Your task to perform on an android device: Show the shopping cart on amazon.com. Search for "razer nari" on amazon.com, select the first entry, add it to the cart, then select checkout. Image 0: 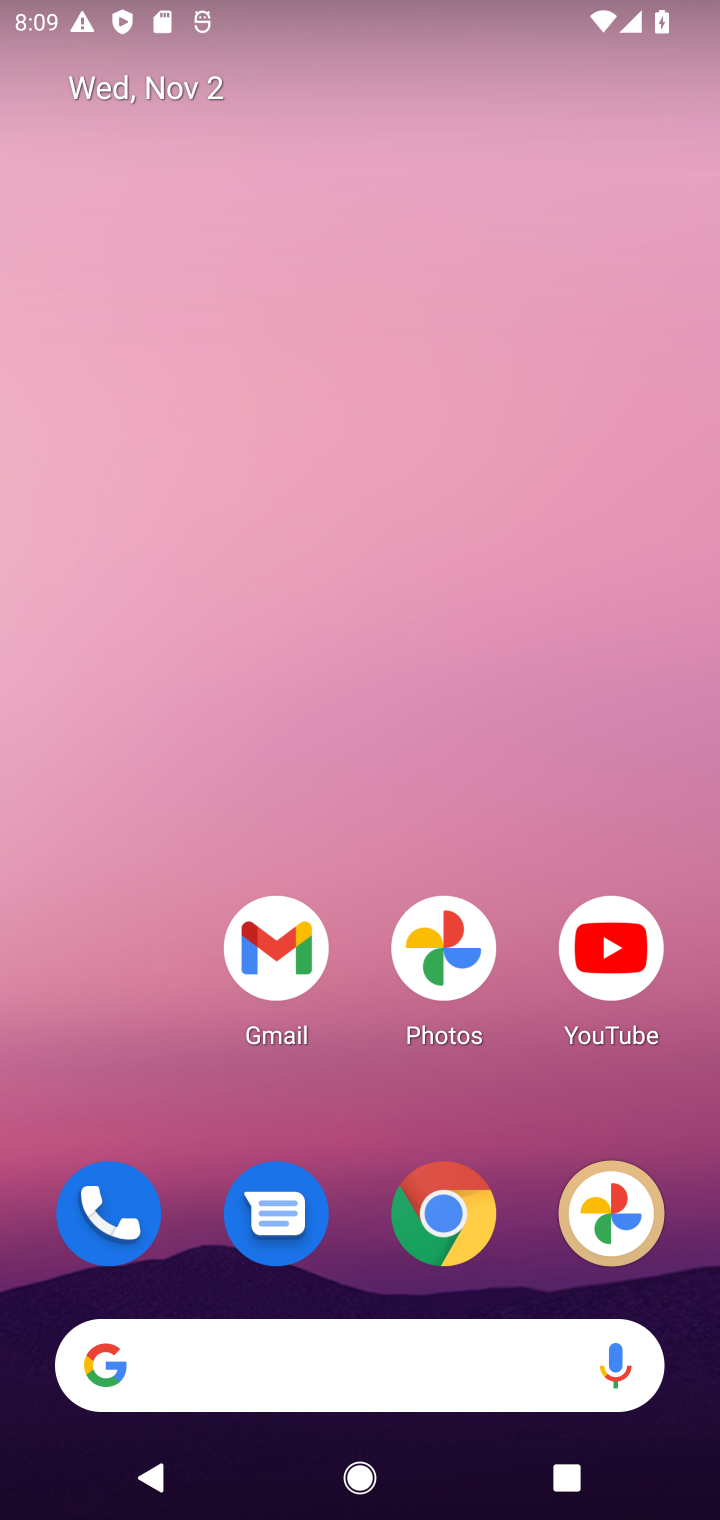
Step 0: click (453, 1195)
Your task to perform on an android device: Show the shopping cart on amazon.com. Search for "razer nari" on amazon.com, select the first entry, add it to the cart, then select checkout. Image 1: 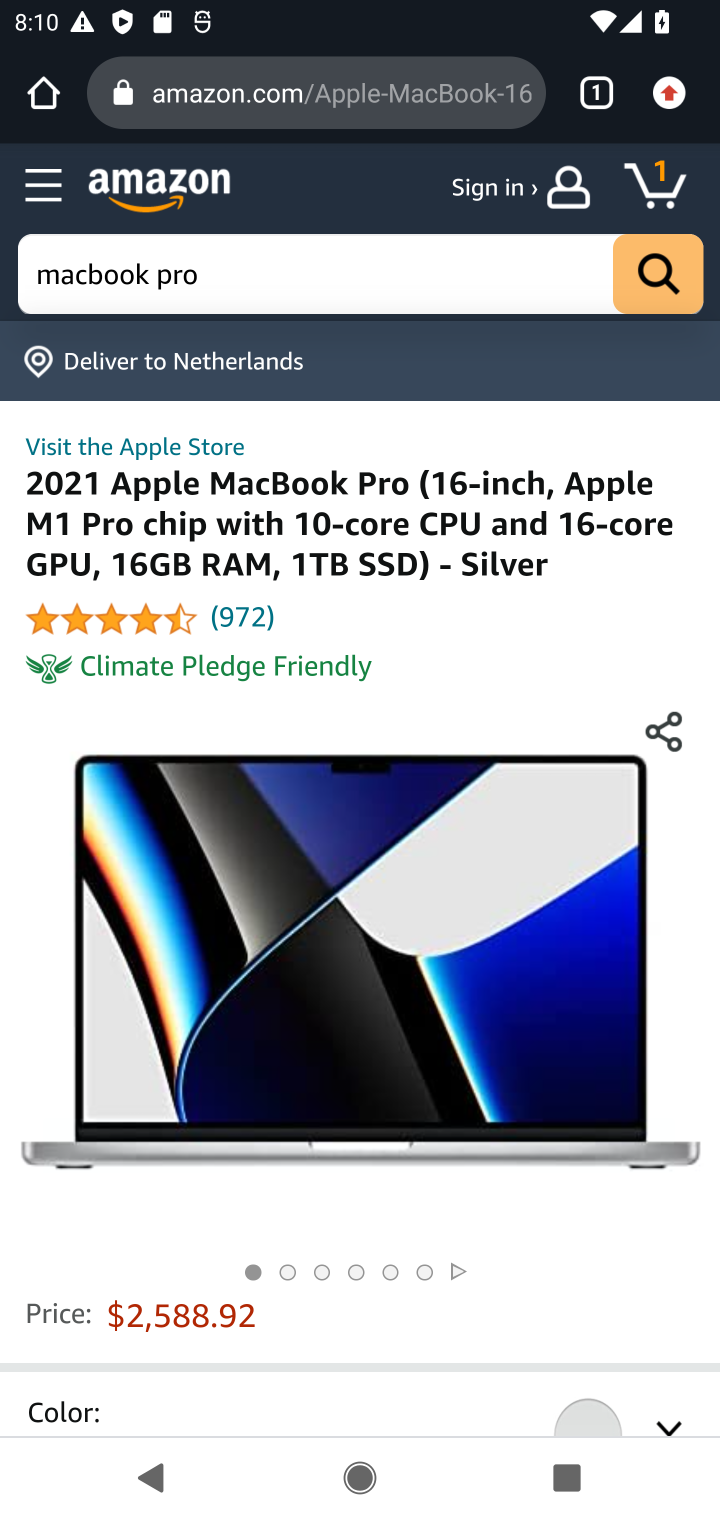
Step 1: click (661, 190)
Your task to perform on an android device: Show the shopping cart on amazon.com. Search for "razer nari" on amazon.com, select the first entry, add it to the cart, then select checkout. Image 2: 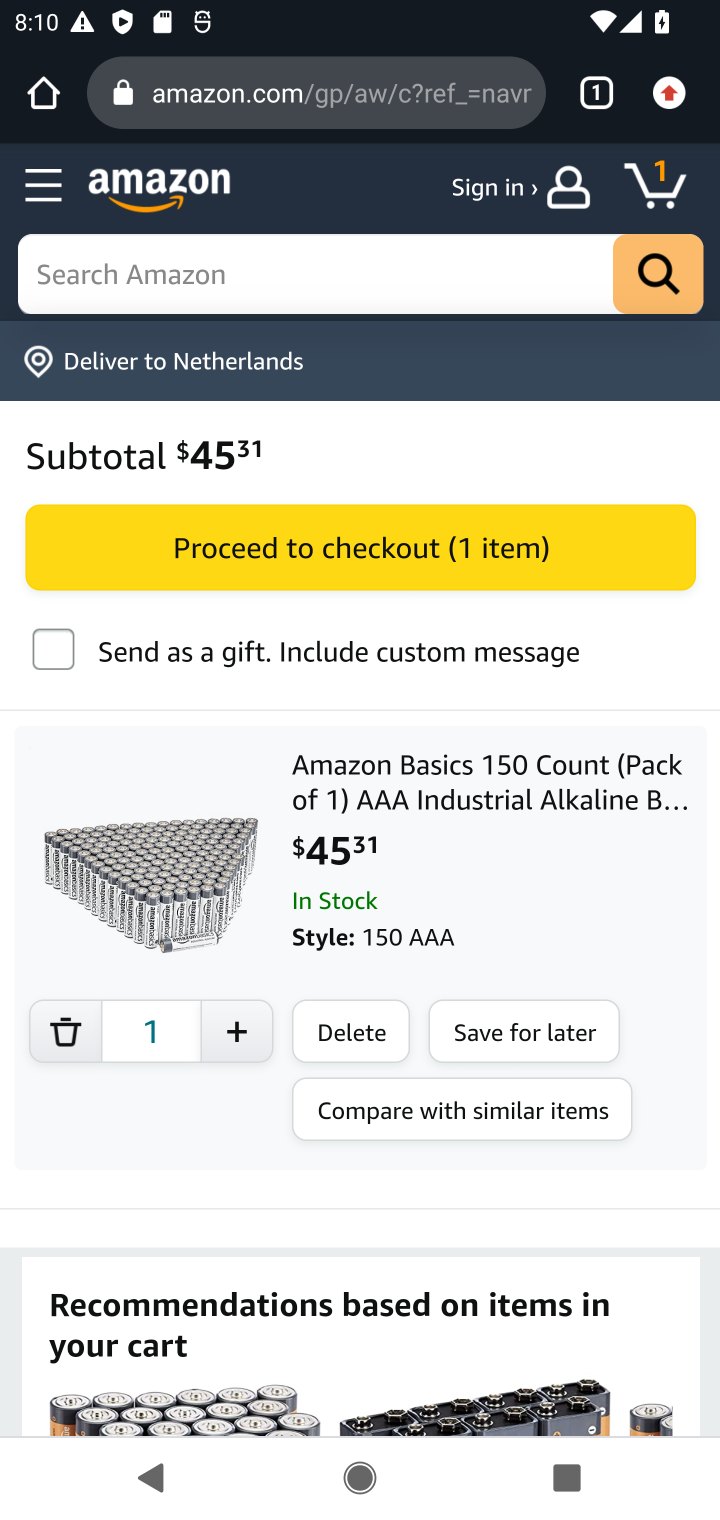
Step 2: click (213, 281)
Your task to perform on an android device: Show the shopping cart on amazon.com. Search for "razer nari" on amazon.com, select the first entry, add it to the cart, then select checkout. Image 3: 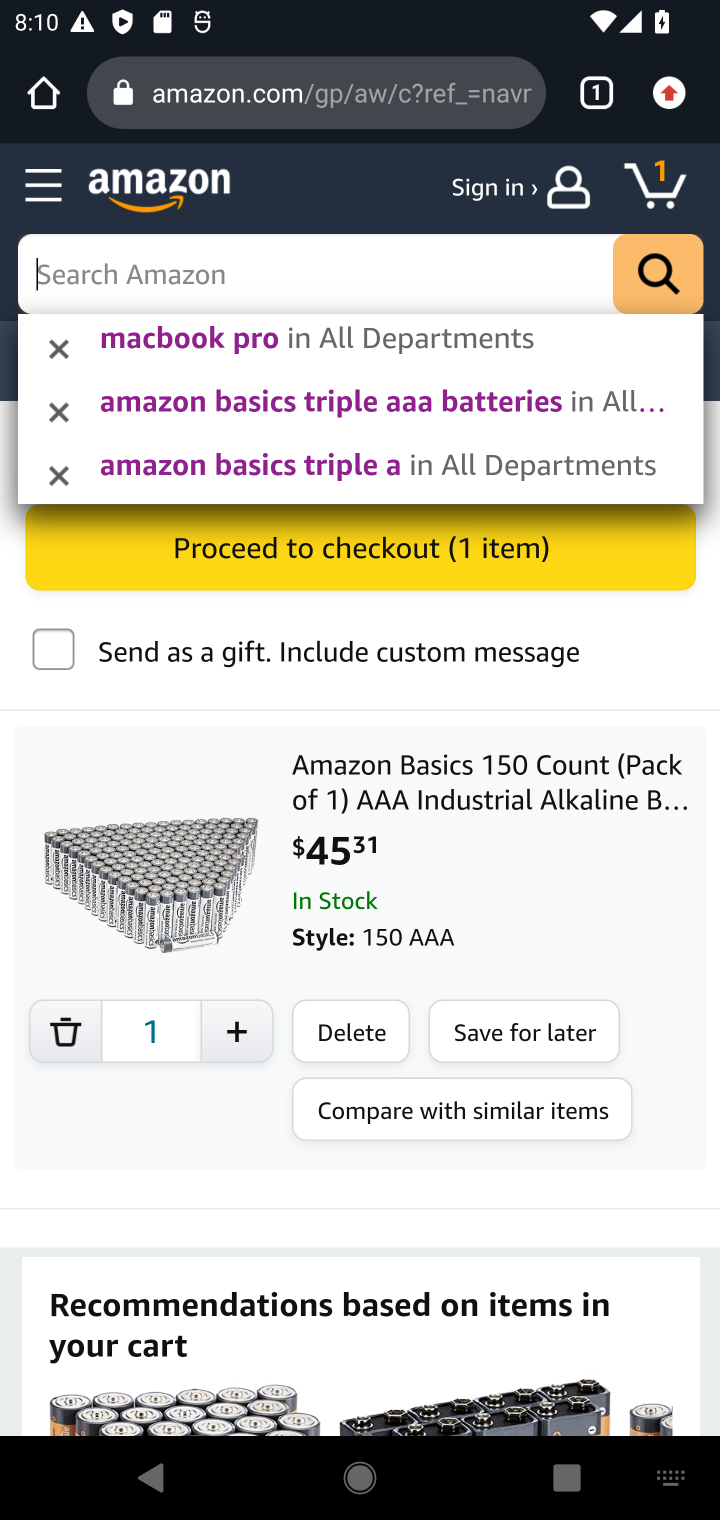
Step 3: type "razer nari"
Your task to perform on an android device: Show the shopping cart on amazon.com. Search for "razer nari" on amazon.com, select the first entry, add it to the cart, then select checkout. Image 4: 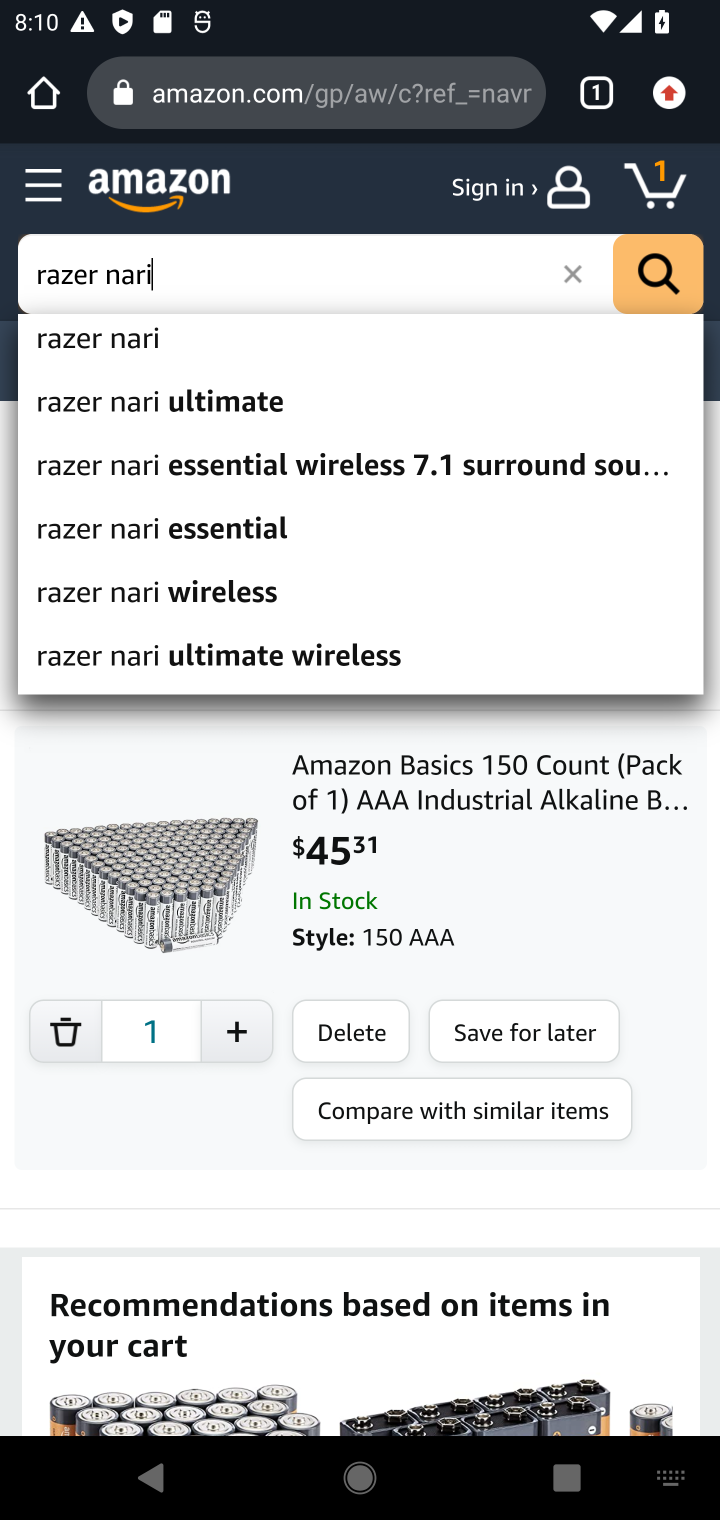
Step 4: click (126, 339)
Your task to perform on an android device: Show the shopping cart on amazon.com. Search for "razer nari" on amazon.com, select the first entry, add it to the cart, then select checkout. Image 5: 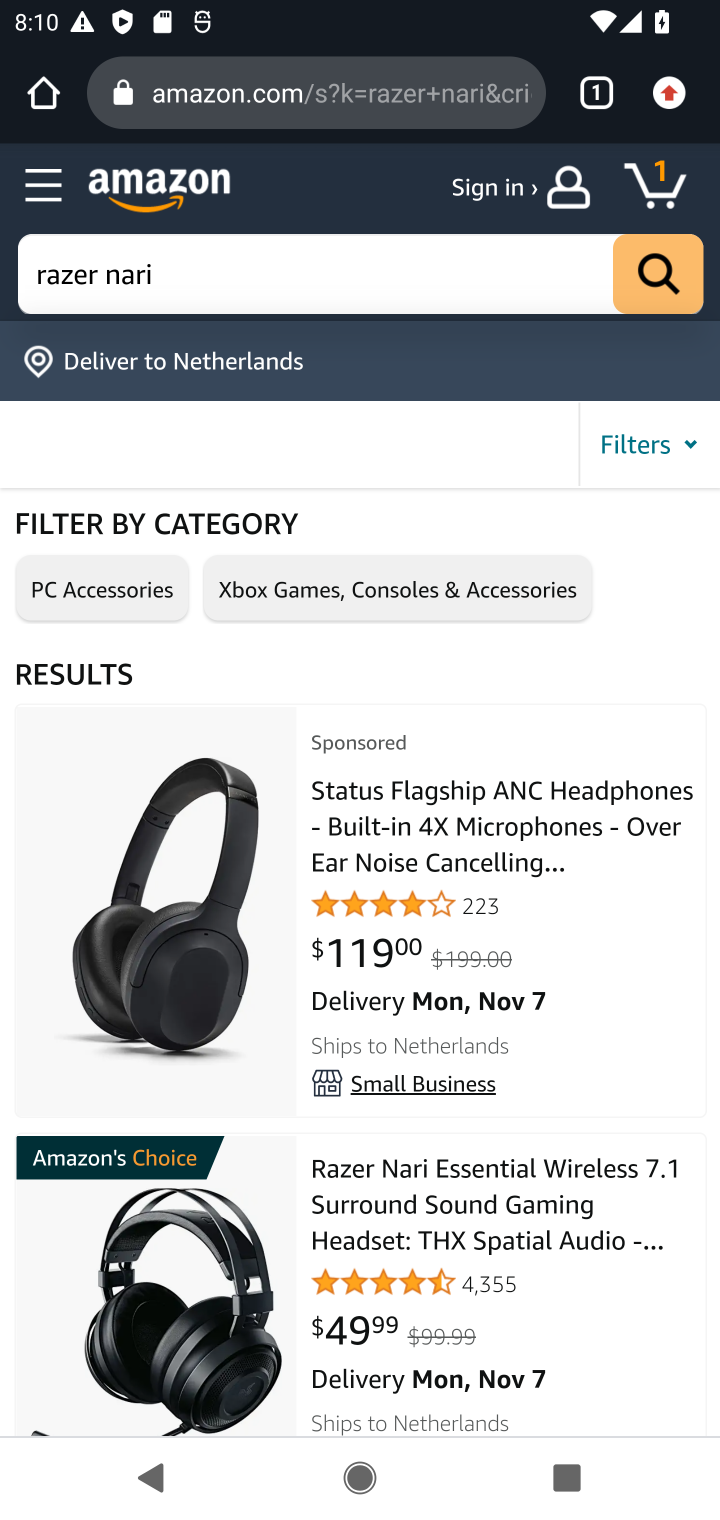
Step 5: click (158, 974)
Your task to perform on an android device: Show the shopping cart on amazon.com. Search for "razer nari" on amazon.com, select the first entry, add it to the cart, then select checkout. Image 6: 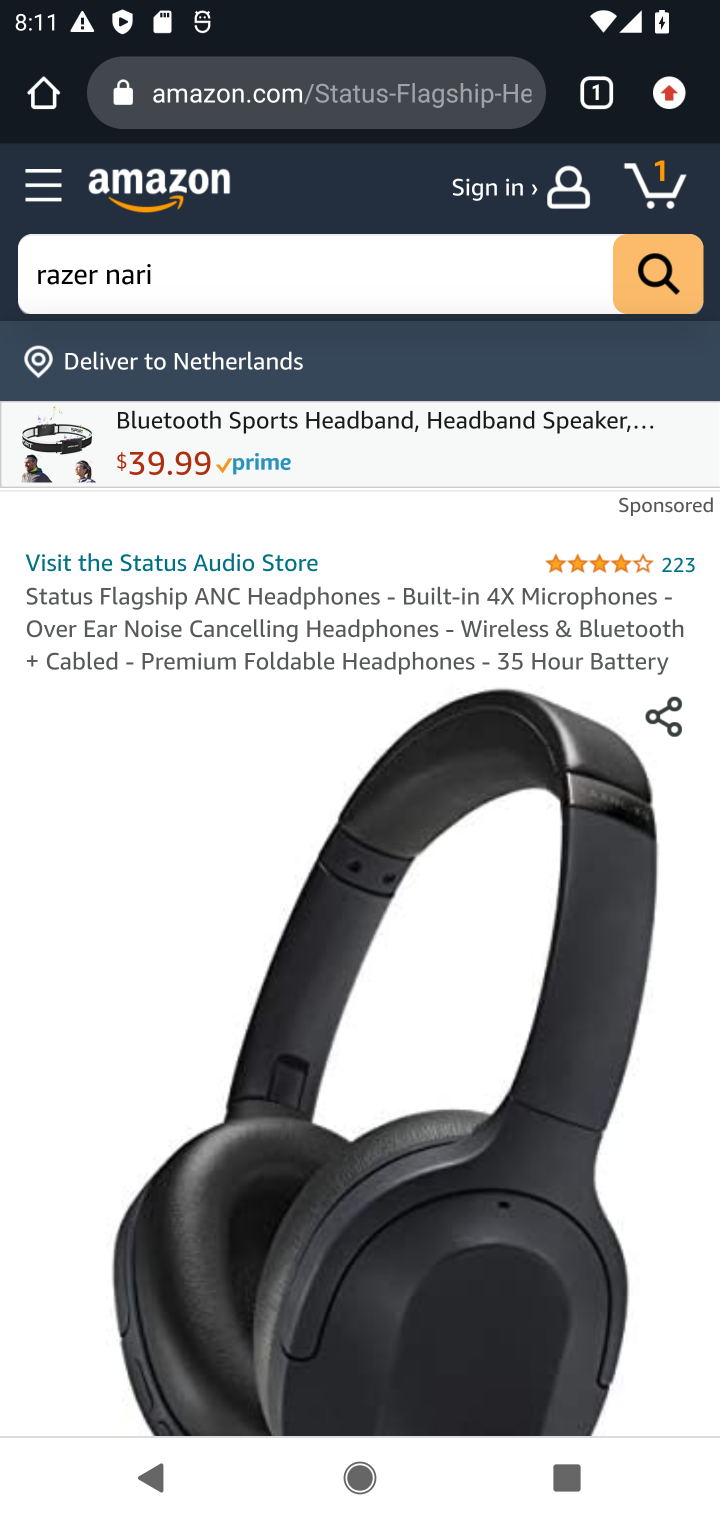
Step 6: task complete